Your task to perform on an android device: turn on the 12-hour format for clock Image 0: 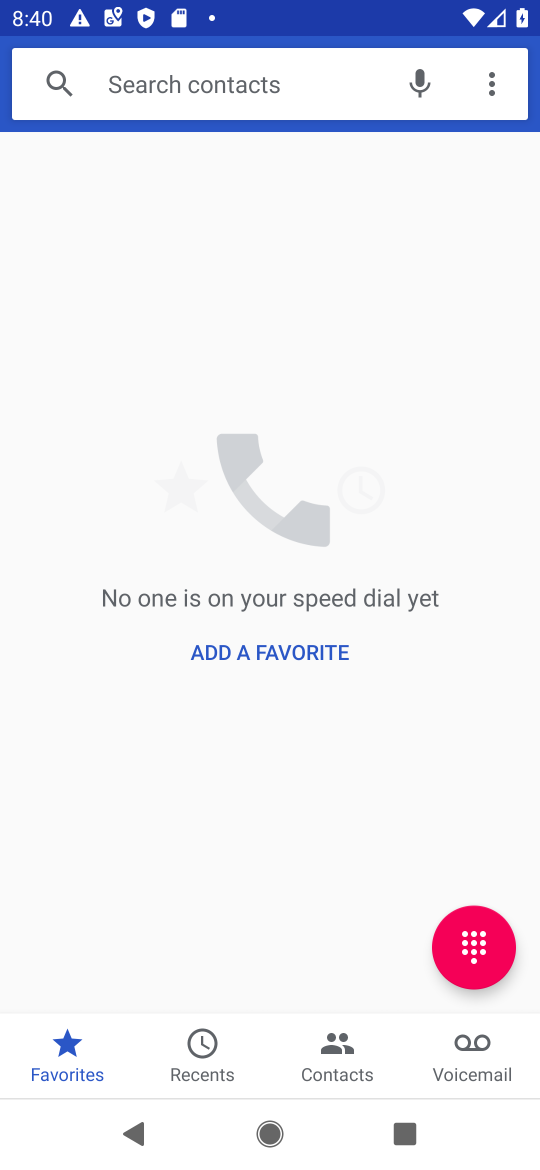
Step 0: press home button
Your task to perform on an android device: turn on the 12-hour format for clock Image 1: 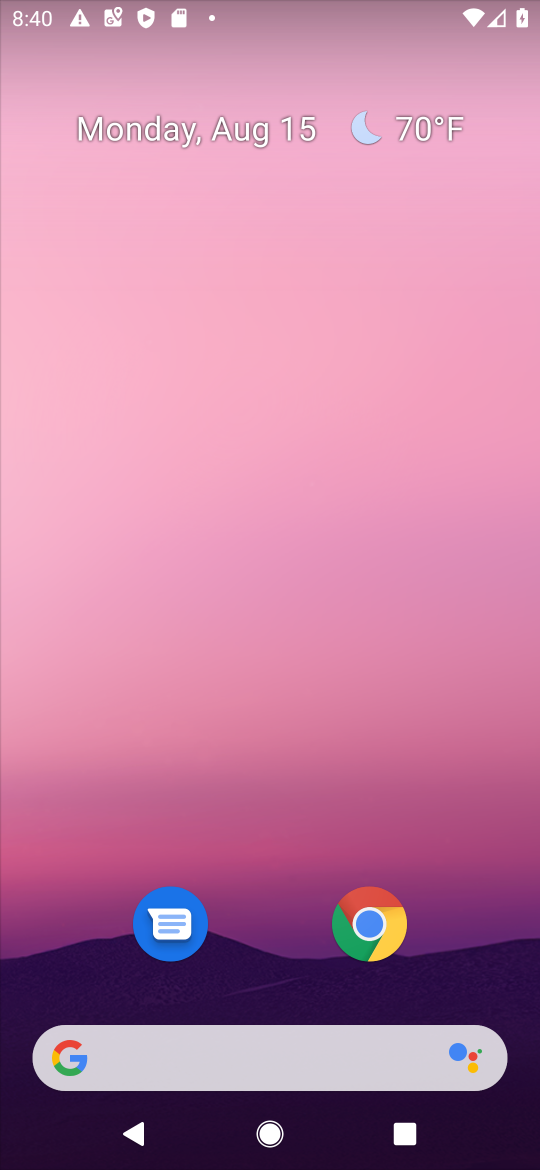
Step 1: drag from (513, 985) to (447, 99)
Your task to perform on an android device: turn on the 12-hour format for clock Image 2: 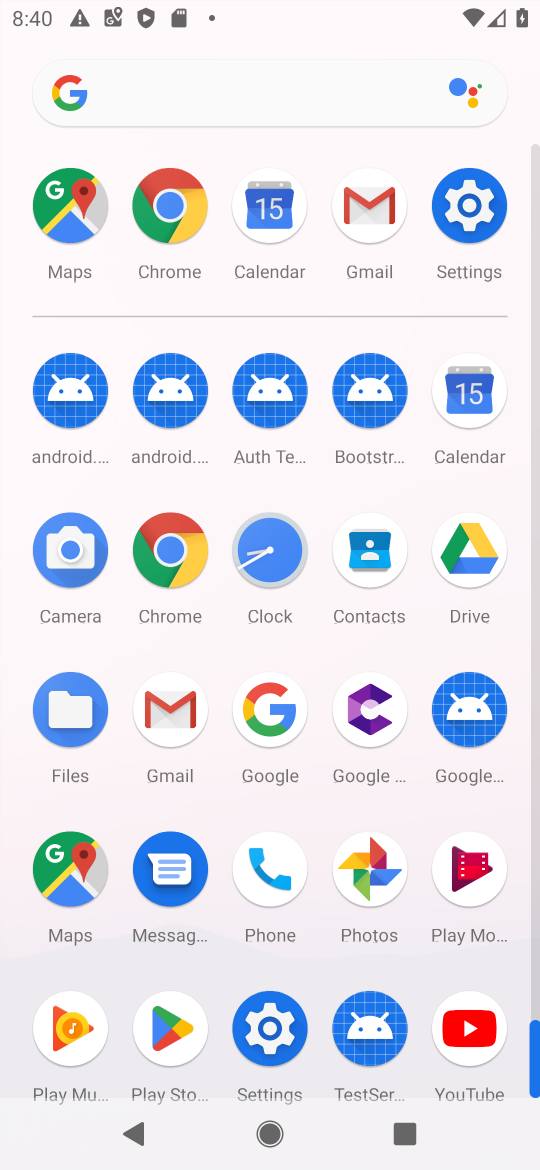
Step 2: click (272, 554)
Your task to perform on an android device: turn on the 12-hour format for clock Image 3: 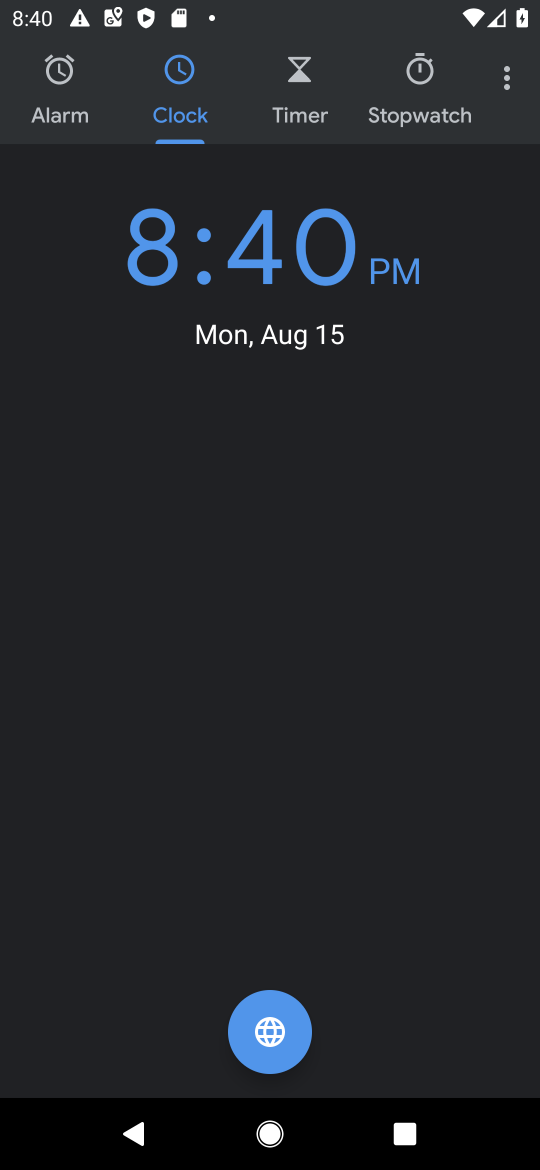
Step 3: click (505, 87)
Your task to perform on an android device: turn on the 12-hour format for clock Image 4: 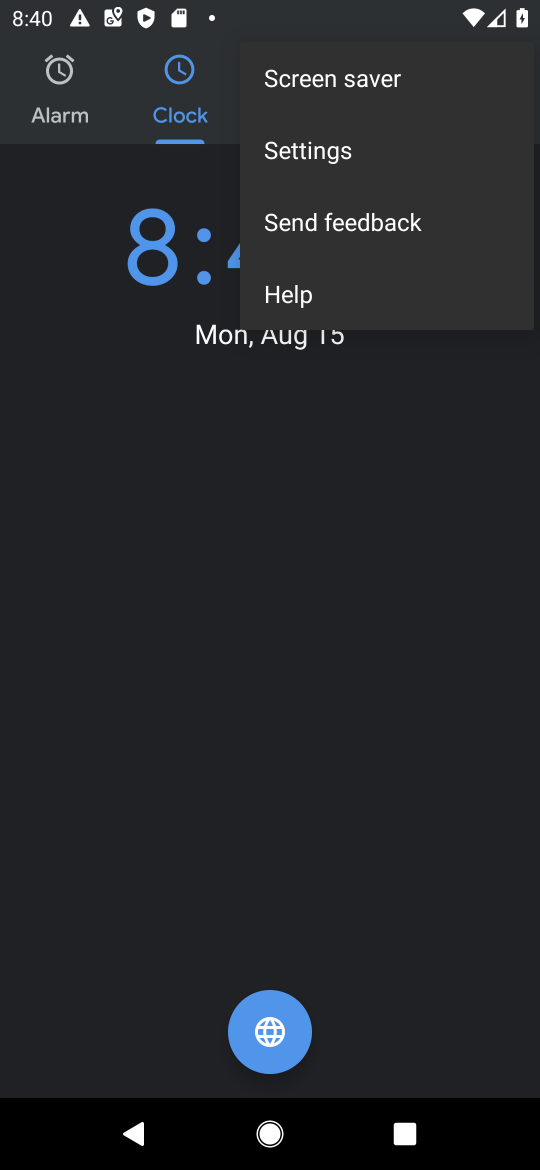
Step 4: click (293, 146)
Your task to perform on an android device: turn on the 12-hour format for clock Image 5: 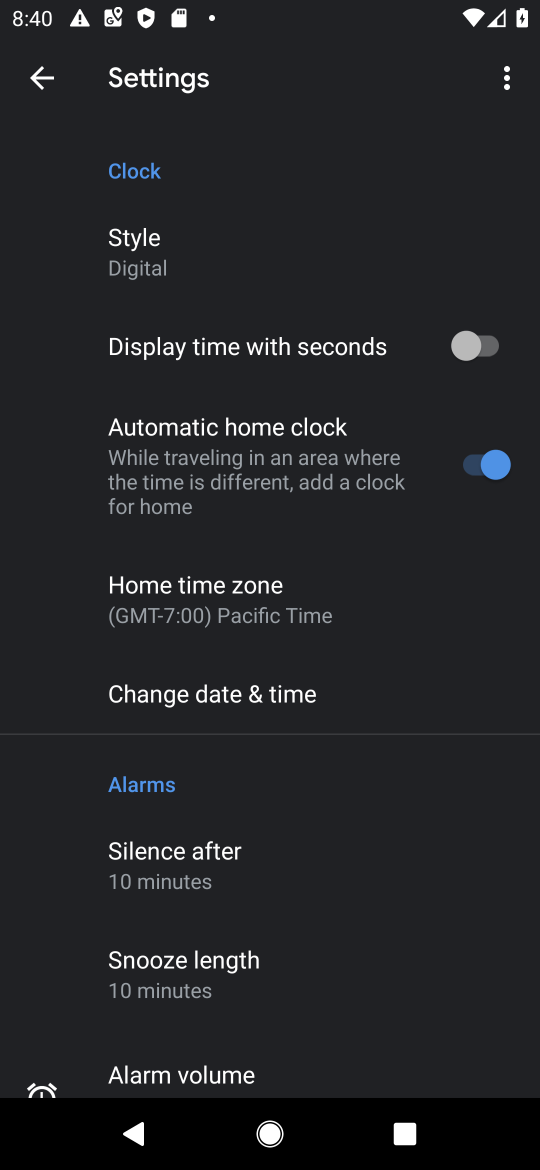
Step 5: click (267, 690)
Your task to perform on an android device: turn on the 12-hour format for clock Image 6: 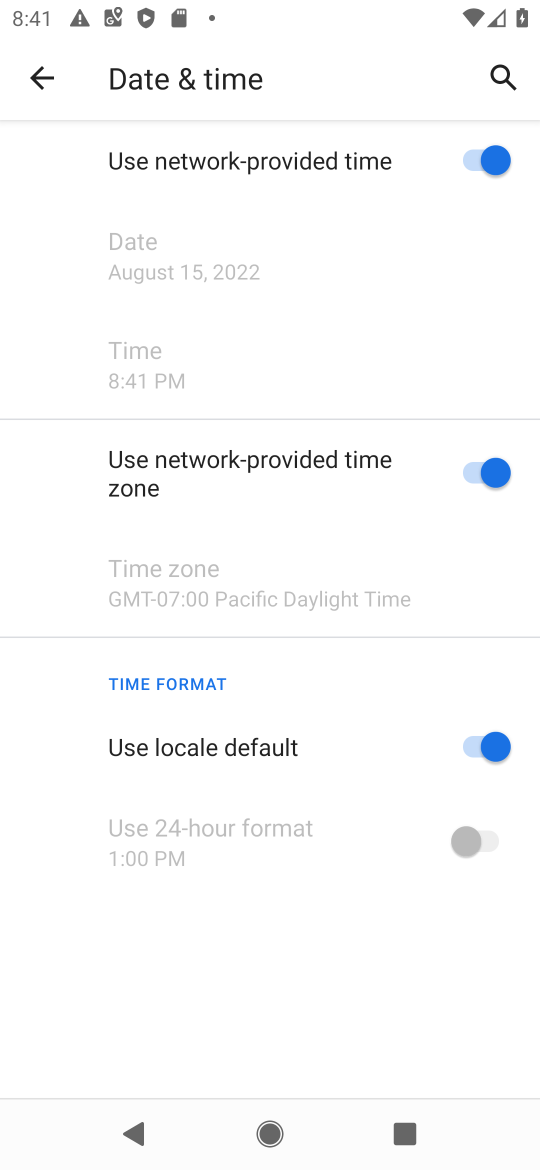
Step 6: task complete